Your task to perform on an android device: turn off sleep mode Image 0: 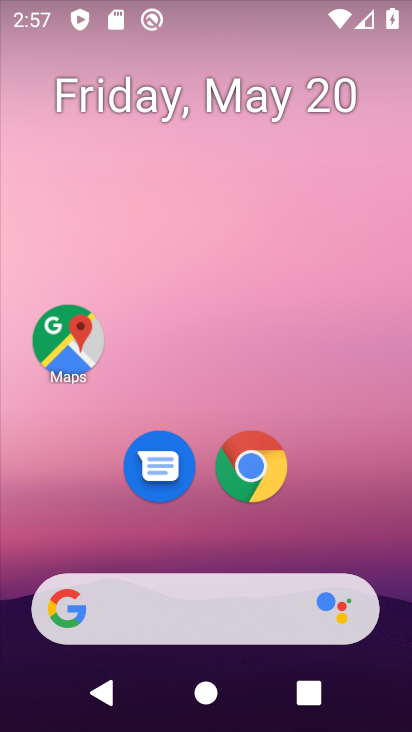
Step 0: drag from (158, 532) to (214, 141)
Your task to perform on an android device: turn off sleep mode Image 1: 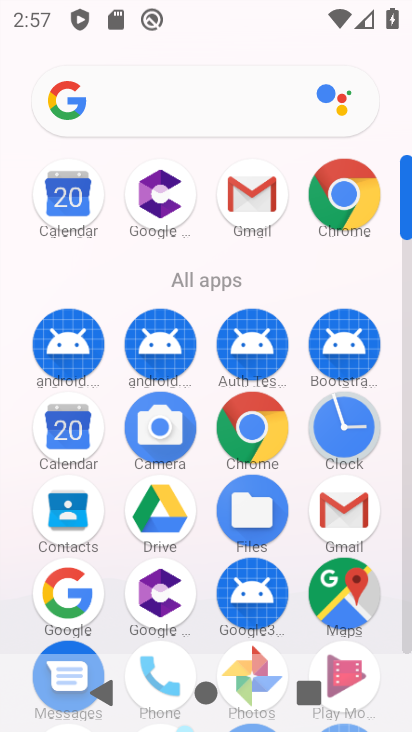
Step 1: drag from (206, 567) to (205, 213)
Your task to perform on an android device: turn off sleep mode Image 2: 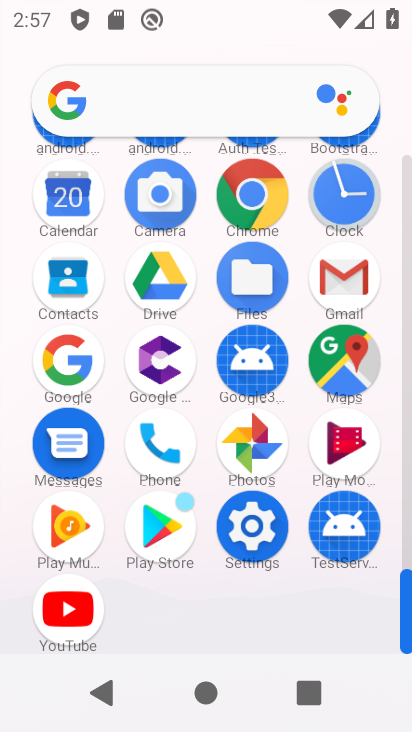
Step 2: click (261, 525)
Your task to perform on an android device: turn off sleep mode Image 3: 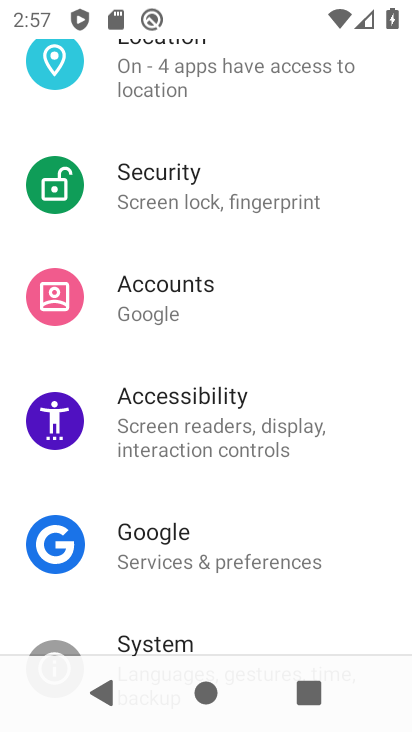
Step 3: drag from (222, 599) to (222, 304)
Your task to perform on an android device: turn off sleep mode Image 4: 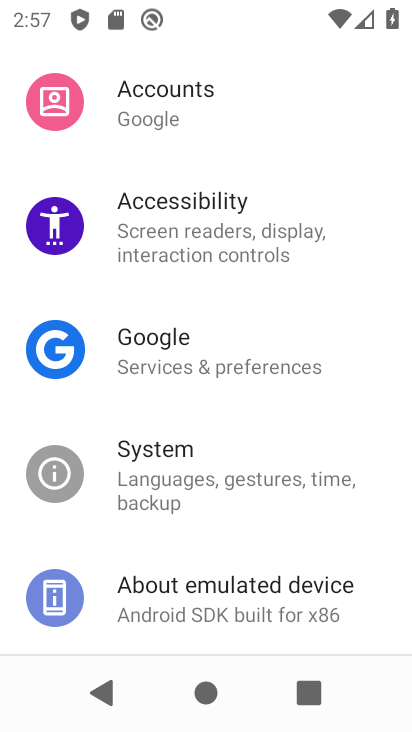
Step 4: drag from (218, 178) to (248, 531)
Your task to perform on an android device: turn off sleep mode Image 5: 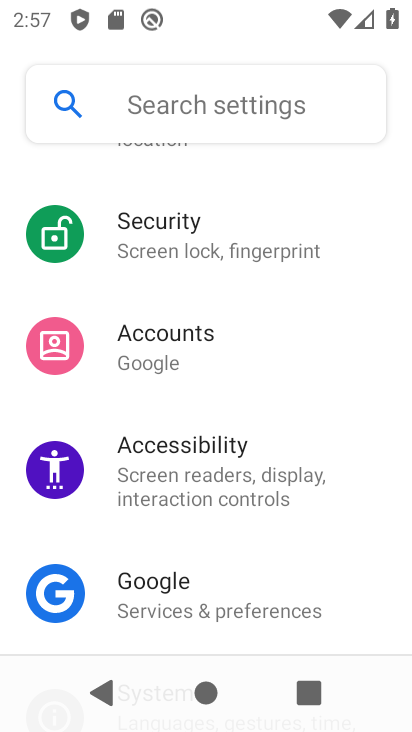
Step 5: drag from (261, 143) to (262, 460)
Your task to perform on an android device: turn off sleep mode Image 6: 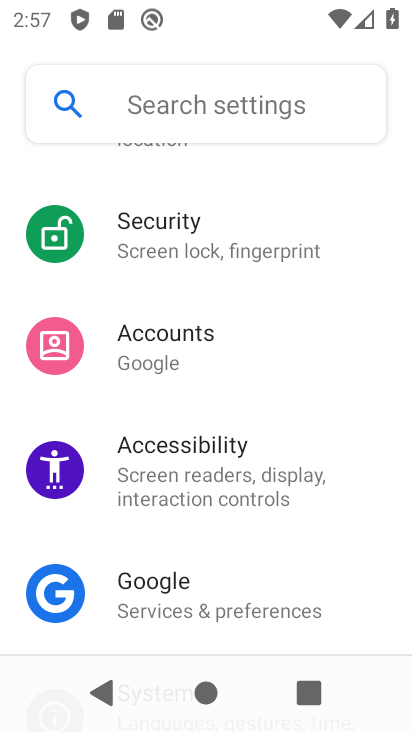
Step 6: drag from (237, 170) to (224, 485)
Your task to perform on an android device: turn off sleep mode Image 7: 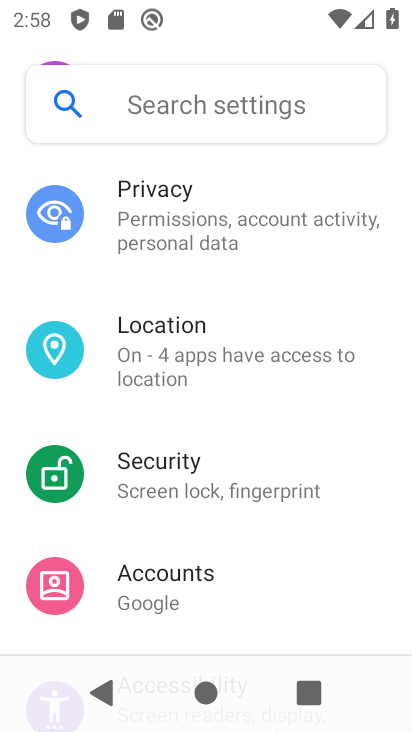
Step 7: drag from (204, 258) to (220, 544)
Your task to perform on an android device: turn off sleep mode Image 8: 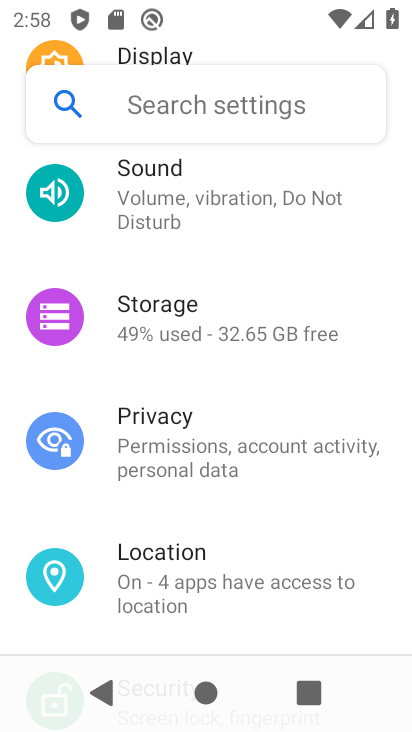
Step 8: drag from (234, 187) to (217, 520)
Your task to perform on an android device: turn off sleep mode Image 9: 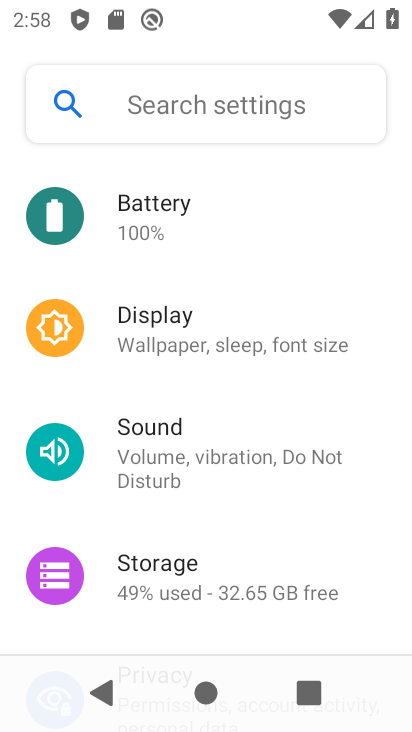
Step 9: click (195, 325)
Your task to perform on an android device: turn off sleep mode Image 10: 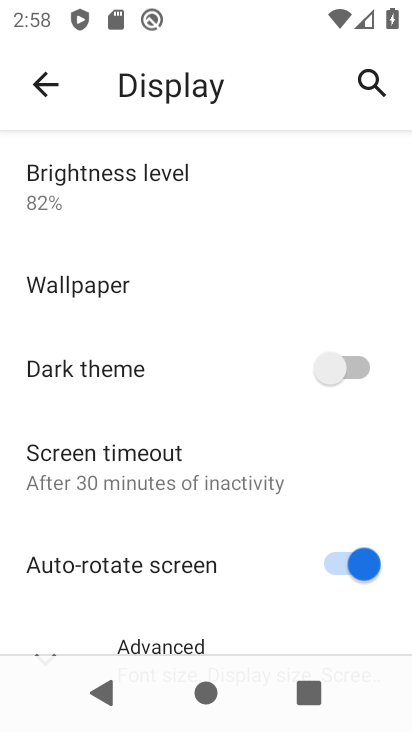
Step 10: drag from (143, 599) to (120, 280)
Your task to perform on an android device: turn off sleep mode Image 11: 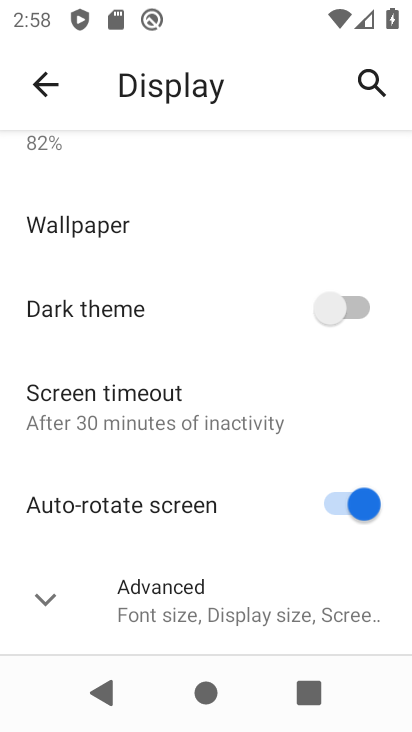
Step 11: click (206, 603)
Your task to perform on an android device: turn off sleep mode Image 12: 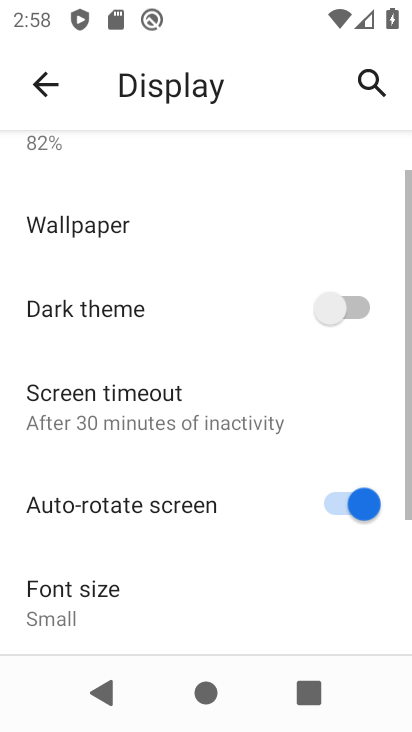
Step 12: click (145, 418)
Your task to perform on an android device: turn off sleep mode Image 13: 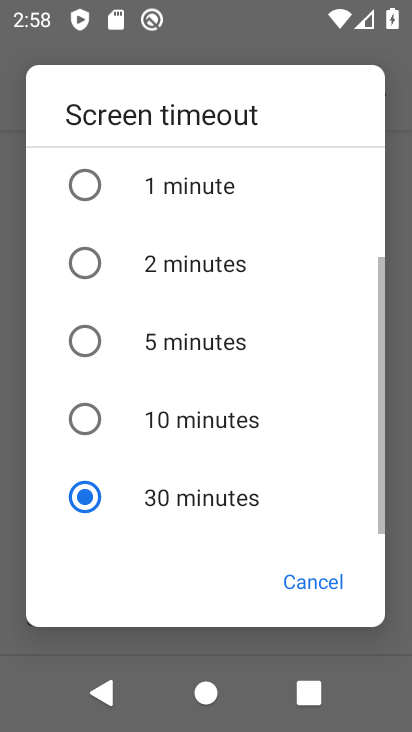
Step 13: click (154, 348)
Your task to perform on an android device: turn off sleep mode Image 14: 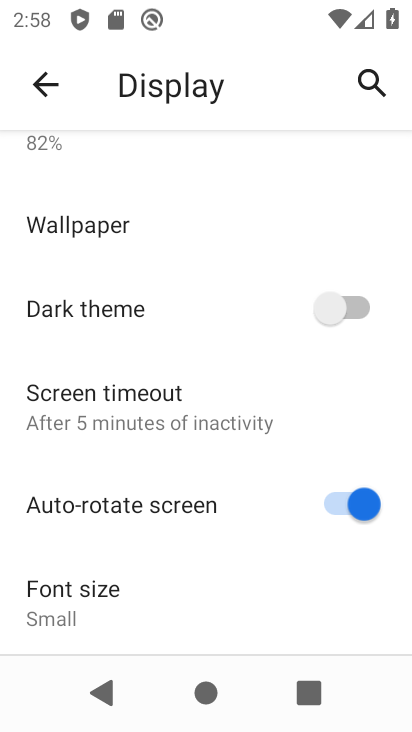
Step 14: task complete